Your task to perform on an android device: delete the emails in spam in the gmail app Image 0: 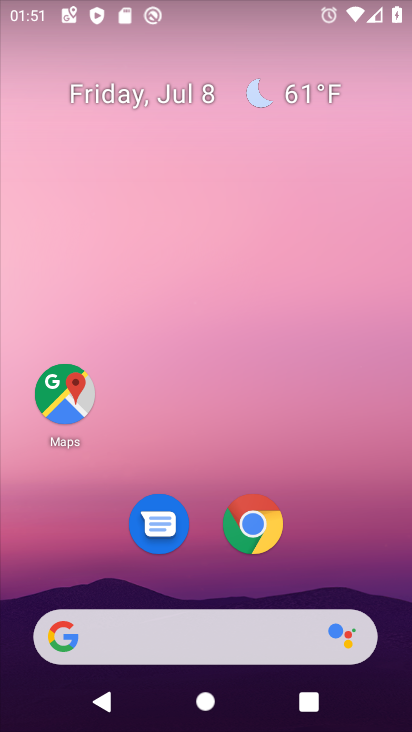
Step 0: drag from (209, 441) to (231, 100)
Your task to perform on an android device: delete the emails in spam in the gmail app Image 1: 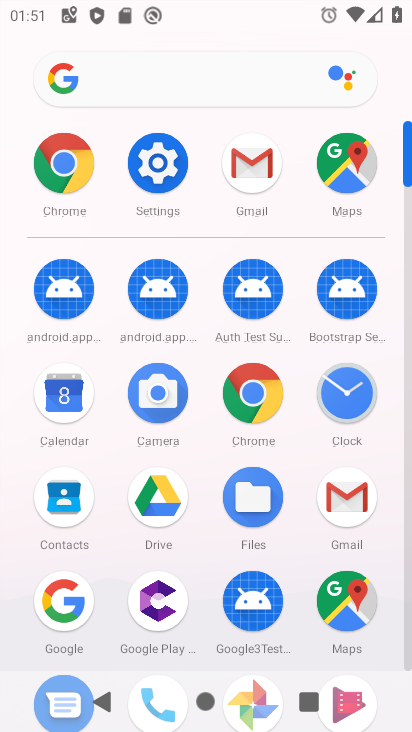
Step 1: click (262, 174)
Your task to perform on an android device: delete the emails in spam in the gmail app Image 2: 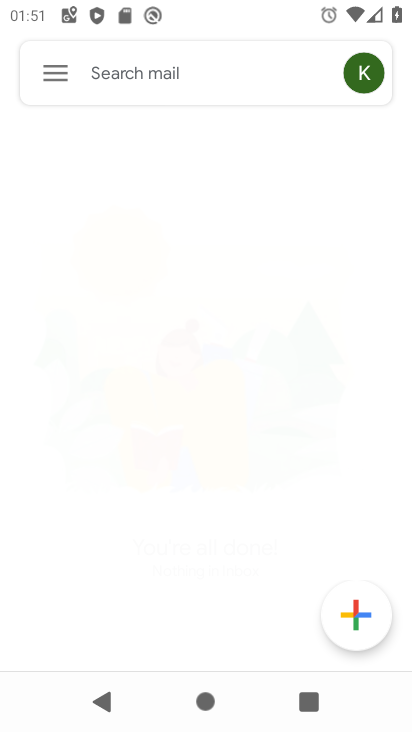
Step 2: click (48, 73)
Your task to perform on an android device: delete the emails in spam in the gmail app Image 3: 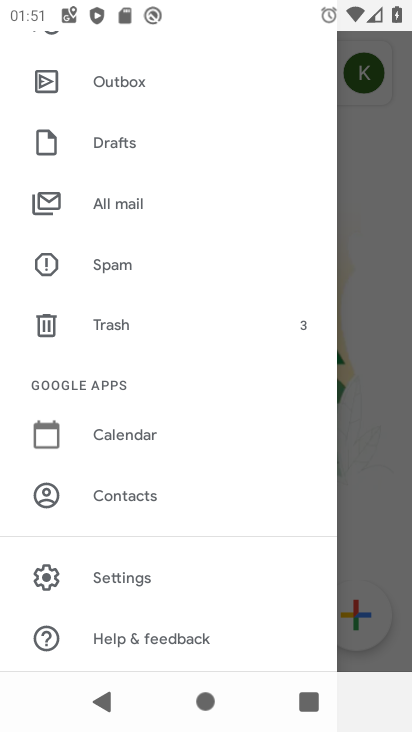
Step 3: click (123, 266)
Your task to perform on an android device: delete the emails in spam in the gmail app Image 4: 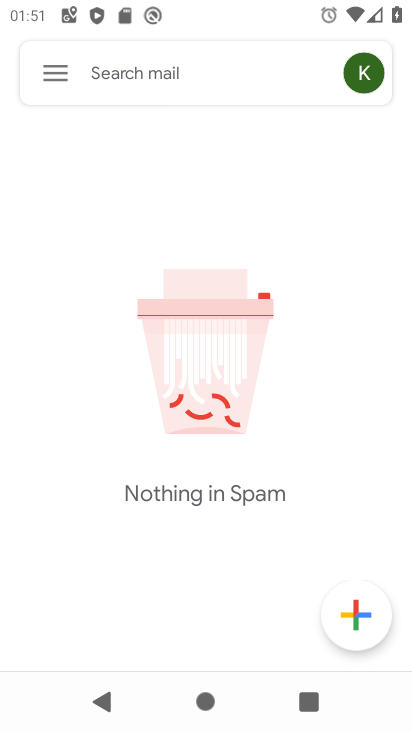
Step 4: task complete